Your task to perform on an android device: Search for Mexican restaurants on Maps Image 0: 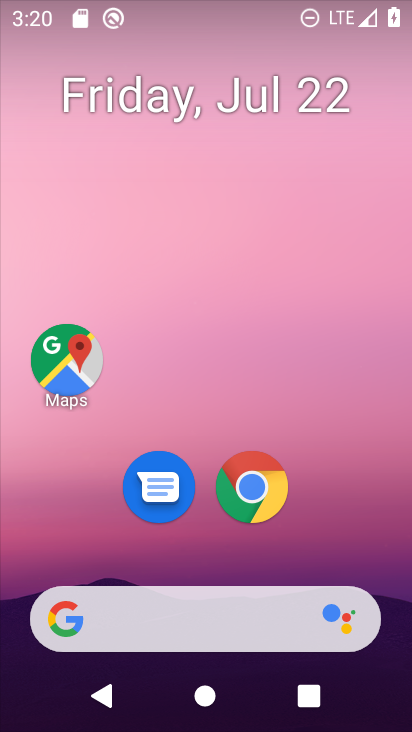
Step 0: click (63, 354)
Your task to perform on an android device: Search for Mexican restaurants on Maps Image 1: 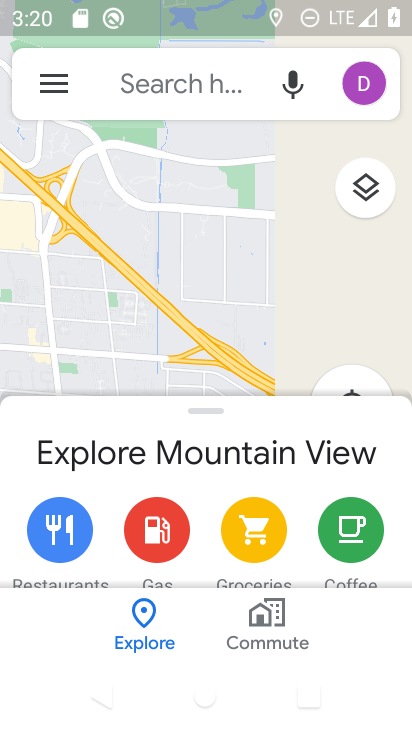
Step 1: click (182, 89)
Your task to perform on an android device: Search for Mexican restaurants on Maps Image 2: 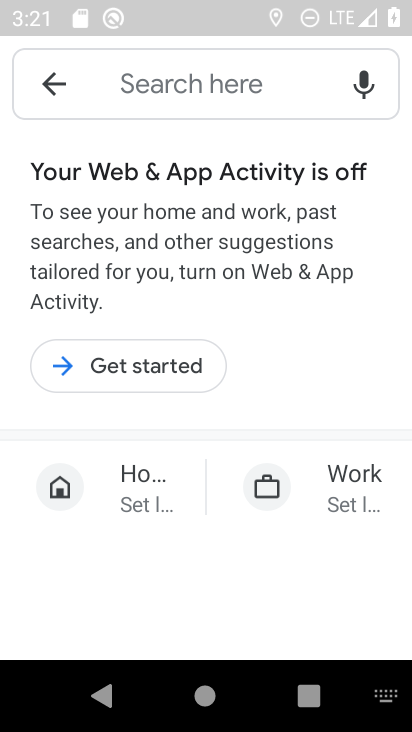
Step 2: type "mexican restaurants"
Your task to perform on an android device: Search for Mexican restaurants on Maps Image 3: 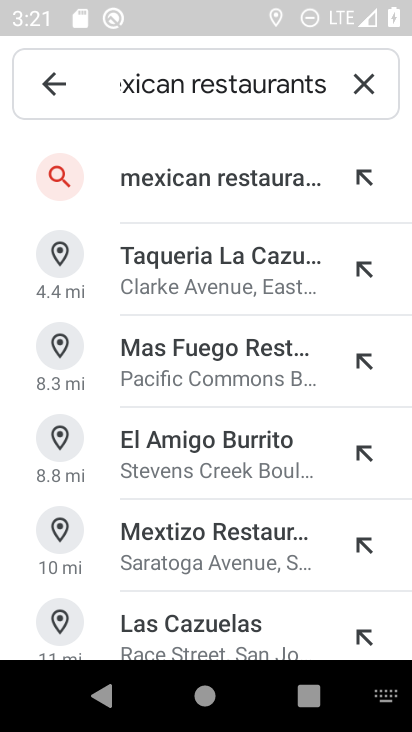
Step 3: click (198, 172)
Your task to perform on an android device: Search for Mexican restaurants on Maps Image 4: 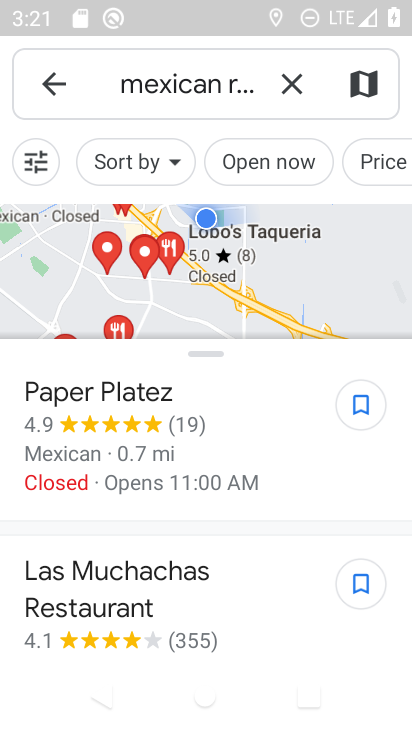
Step 4: task complete